Your task to perform on an android device: open app "The Home Depot" Image 0: 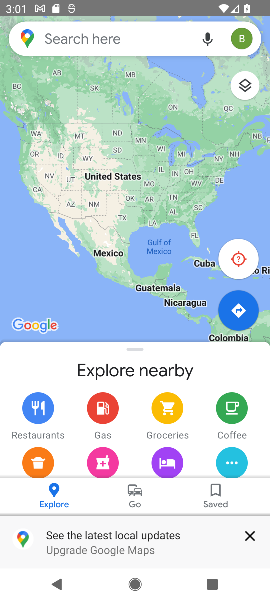
Step 0: press home button
Your task to perform on an android device: open app "The Home Depot" Image 1: 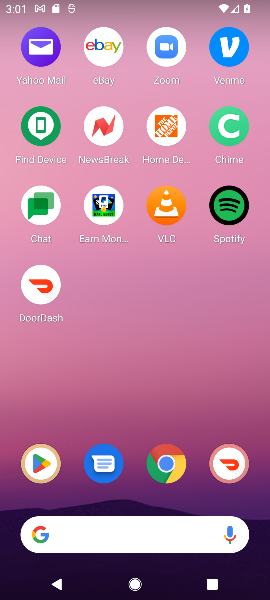
Step 1: press home button
Your task to perform on an android device: open app "The Home Depot" Image 2: 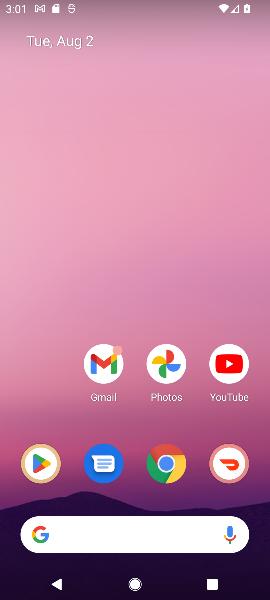
Step 2: click (45, 465)
Your task to perform on an android device: open app "The Home Depot" Image 3: 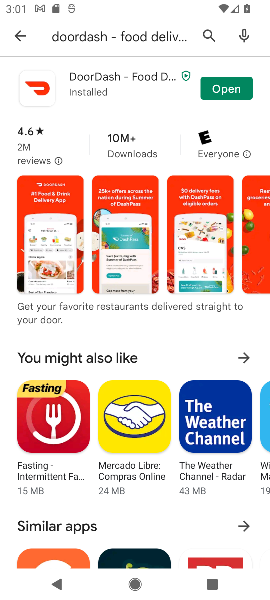
Step 3: click (216, 33)
Your task to perform on an android device: open app "The Home Depot" Image 4: 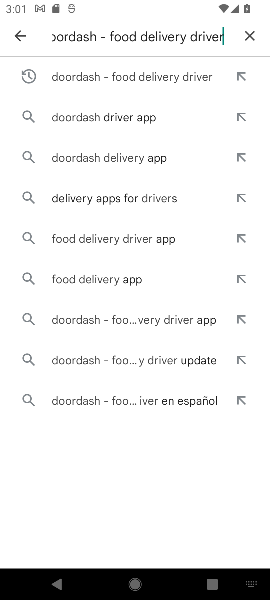
Step 4: click (255, 28)
Your task to perform on an android device: open app "The Home Depot" Image 5: 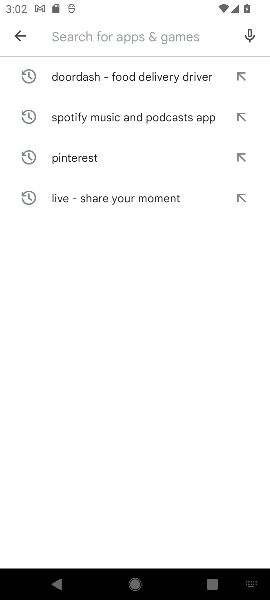
Step 5: type "The Home Depot"
Your task to perform on an android device: open app "The Home Depot" Image 6: 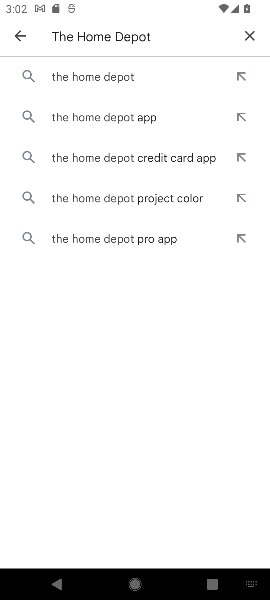
Step 6: click (110, 75)
Your task to perform on an android device: open app "The Home Depot" Image 7: 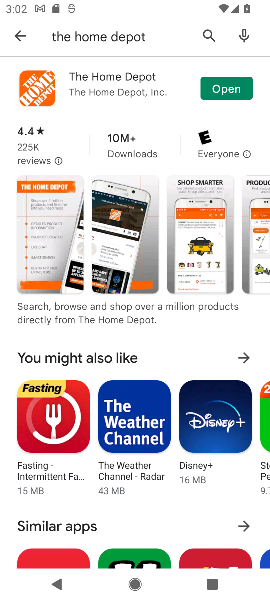
Step 7: click (232, 87)
Your task to perform on an android device: open app "The Home Depot" Image 8: 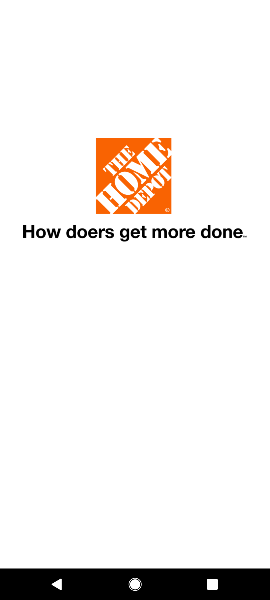
Step 8: task complete